Your task to perform on an android device: Go to battery settings Image 0: 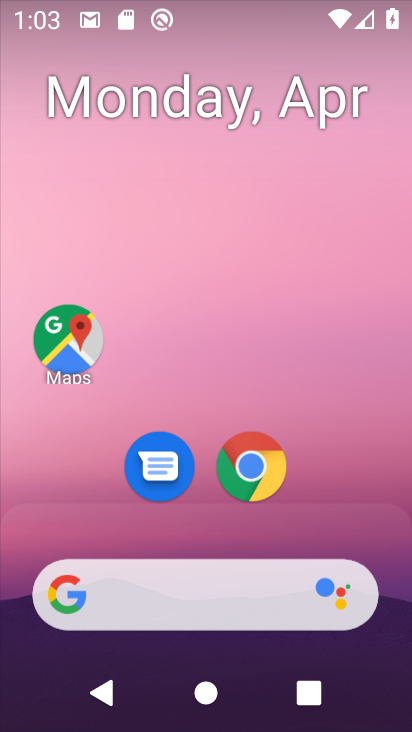
Step 0: drag from (181, 436) to (249, 13)
Your task to perform on an android device: Go to battery settings Image 1: 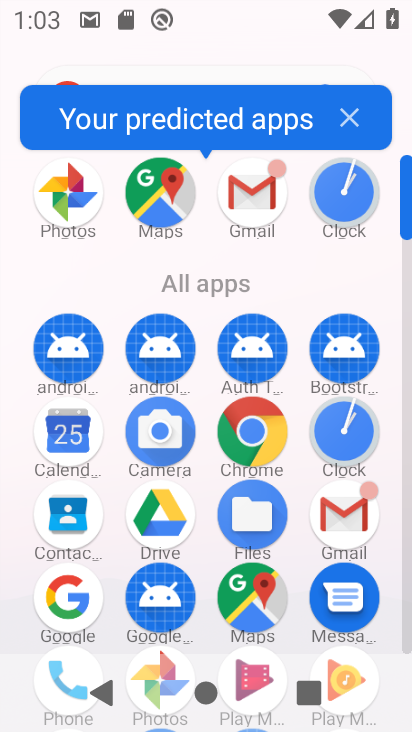
Step 1: drag from (157, 622) to (237, 256)
Your task to perform on an android device: Go to battery settings Image 2: 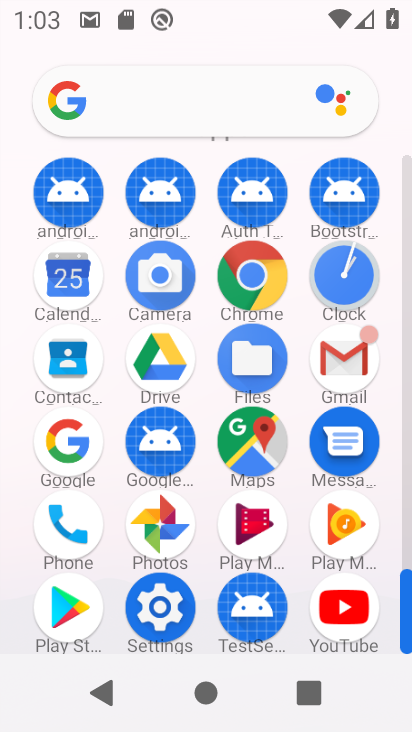
Step 2: click (170, 605)
Your task to perform on an android device: Go to battery settings Image 3: 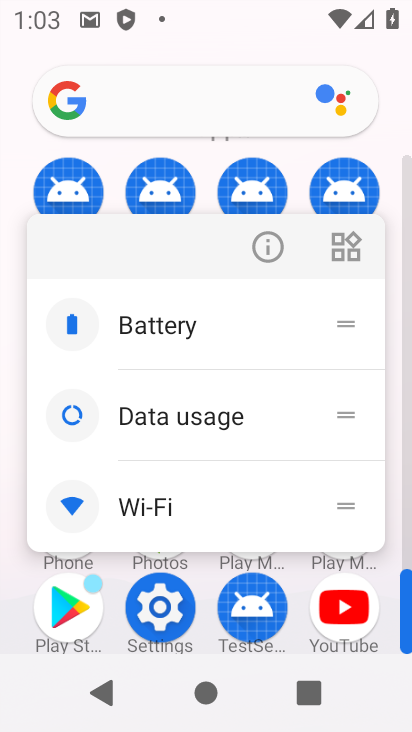
Step 3: click (176, 614)
Your task to perform on an android device: Go to battery settings Image 4: 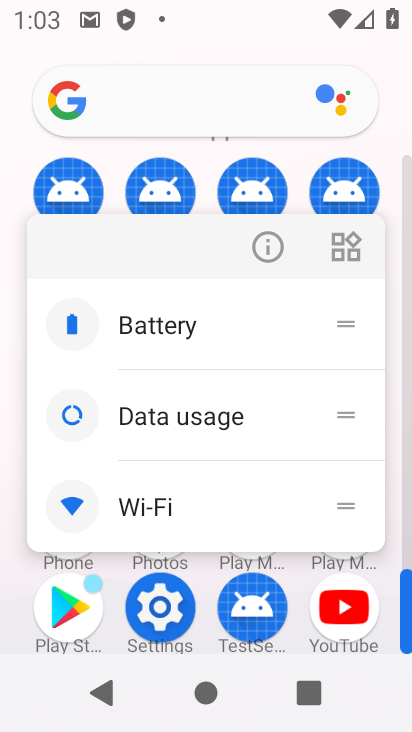
Step 4: click (167, 618)
Your task to perform on an android device: Go to battery settings Image 5: 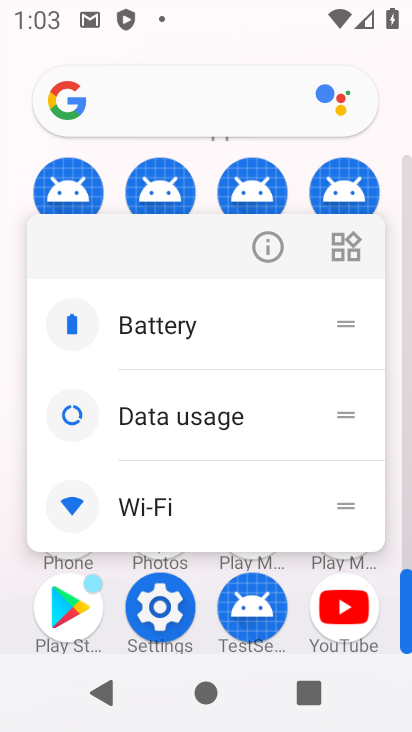
Step 5: click (158, 610)
Your task to perform on an android device: Go to battery settings Image 6: 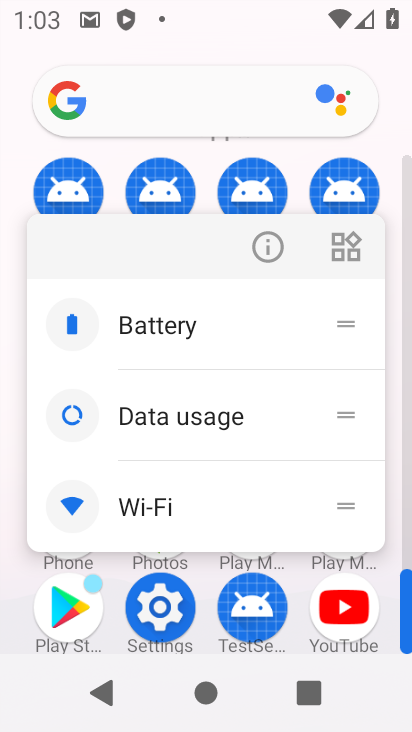
Step 6: click (161, 603)
Your task to perform on an android device: Go to battery settings Image 7: 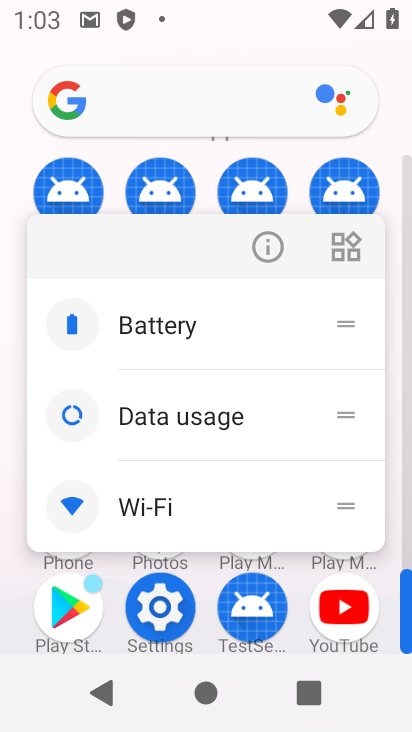
Step 7: click (161, 610)
Your task to perform on an android device: Go to battery settings Image 8: 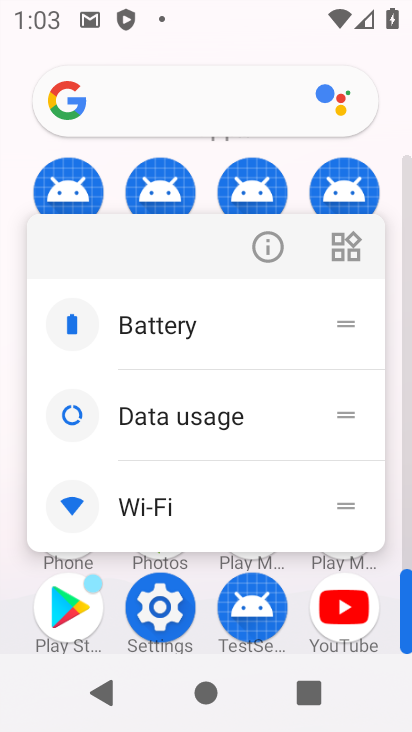
Step 8: click (174, 632)
Your task to perform on an android device: Go to battery settings Image 9: 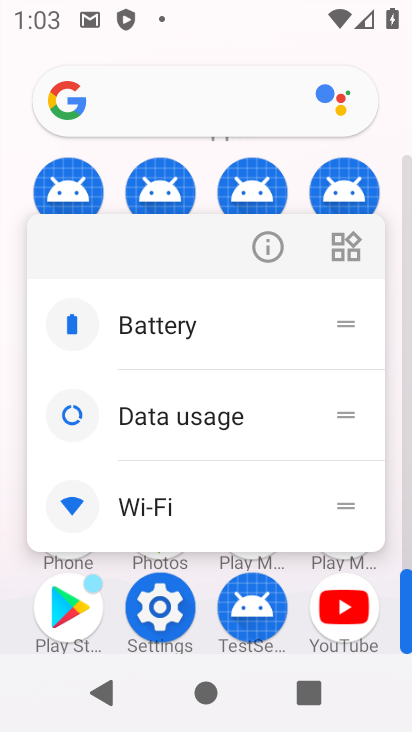
Step 9: click (174, 620)
Your task to perform on an android device: Go to battery settings Image 10: 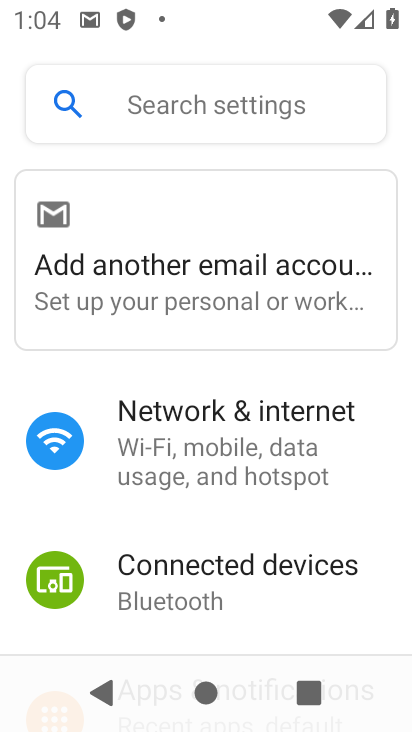
Step 10: drag from (174, 604) to (296, 192)
Your task to perform on an android device: Go to battery settings Image 11: 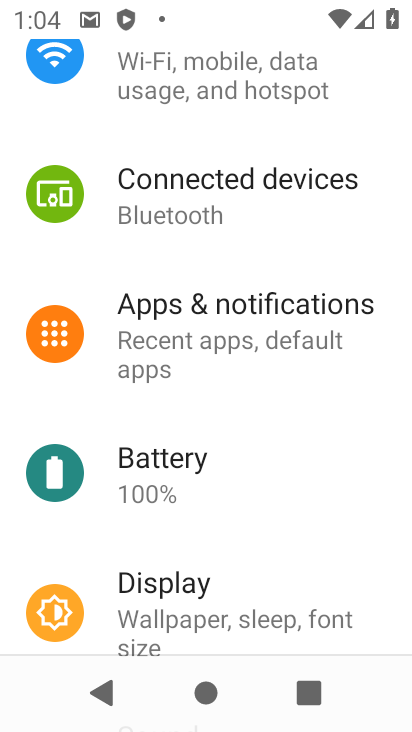
Step 11: click (208, 474)
Your task to perform on an android device: Go to battery settings Image 12: 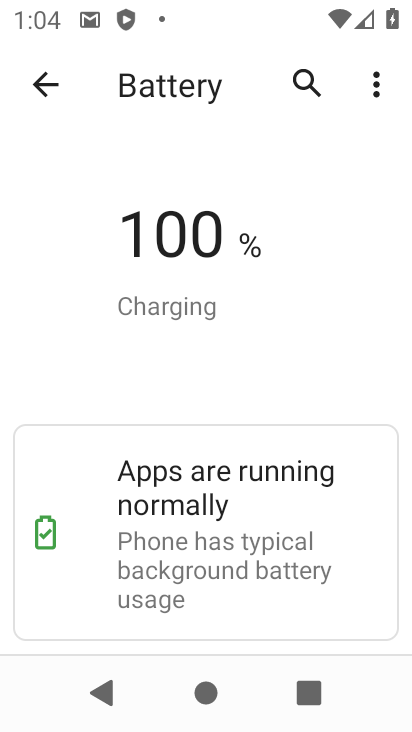
Step 12: task complete